Your task to perform on an android device: Show me productivity apps on the Play Store Image 0: 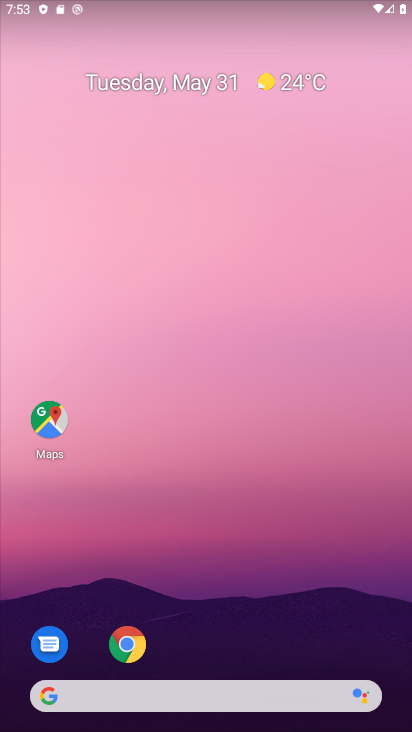
Step 0: drag from (258, 528) to (254, 210)
Your task to perform on an android device: Show me productivity apps on the Play Store Image 1: 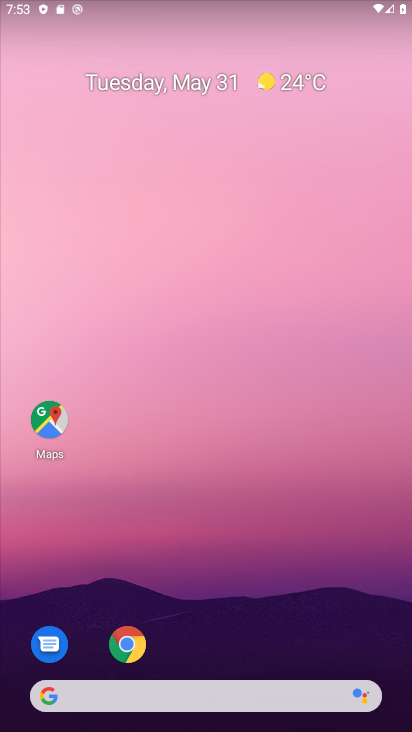
Step 1: drag from (291, 645) to (266, 235)
Your task to perform on an android device: Show me productivity apps on the Play Store Image 2: 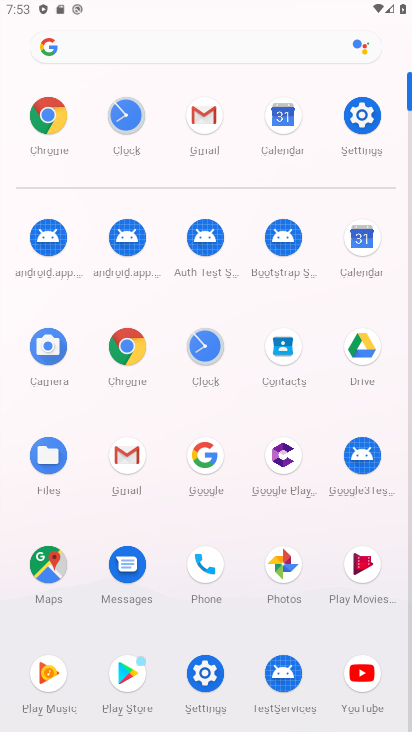
Step 2: click (129, 663)
Your task to perform on an android device: Show me productivity apps on the Play Store Image 3: 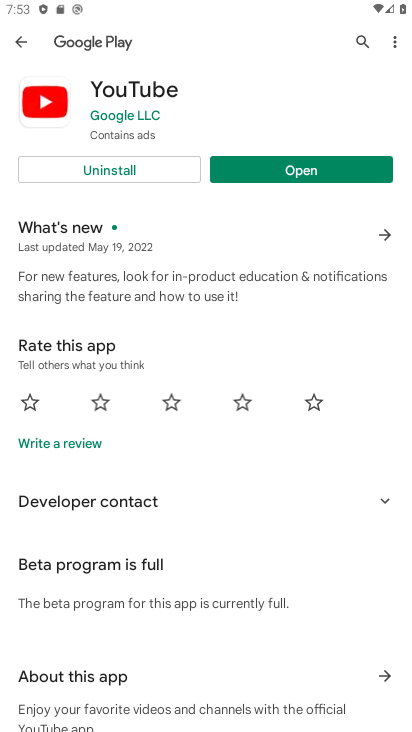
Step 3: drag from (185, 626) to (188, 293)
Your task to perform on an android device: Show me productivity apps on the Play Store Image 4: 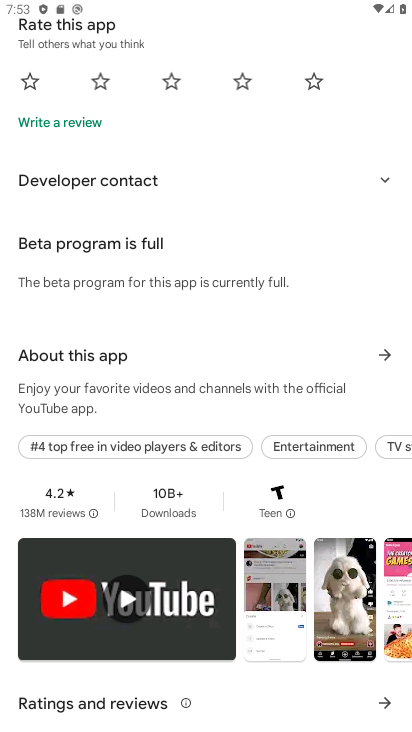
Step 4: drag from (81, 114) to (81, 358)
Your task to perform on an android device: Show me productivity apps on the Play Store Image 5: 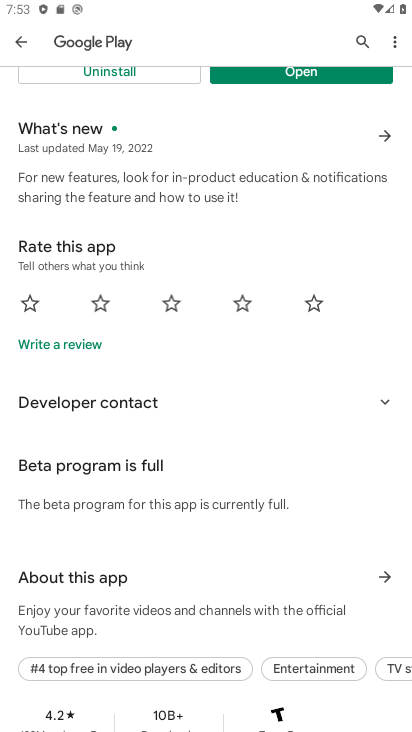
Step 5: click (21, 43)
Your task to perform on an android device: Show me productivity apps on the Play Store Image 6: 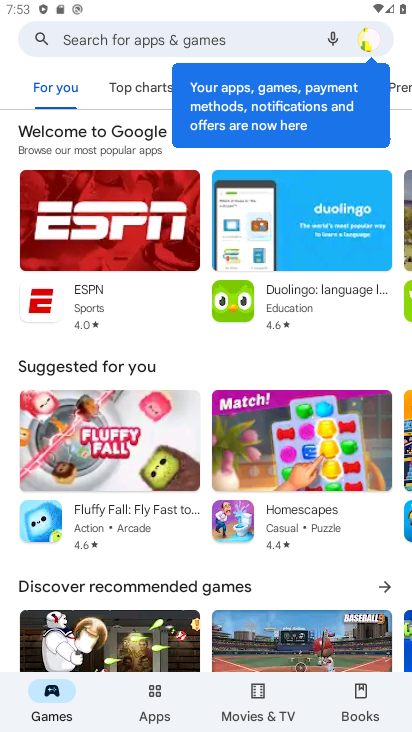
Step 6: click (157, 688)
Your task to perform on an android device: Show me productivity apps on the Play Store Image 7: 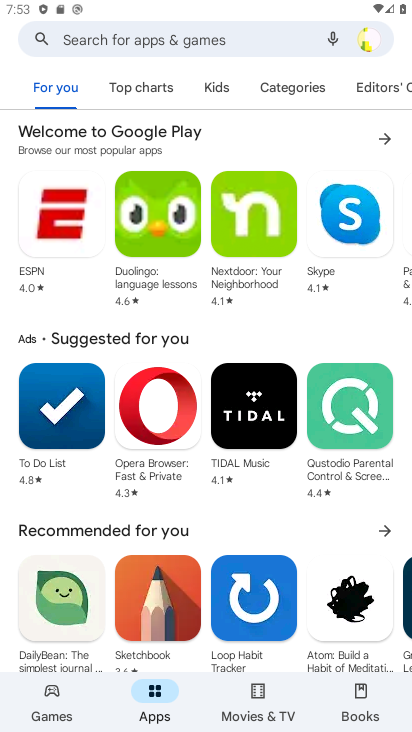
Step 7: click (287, 84)
Your task to perform on an android device: Show me productivity apps on the Play Store Image 8: 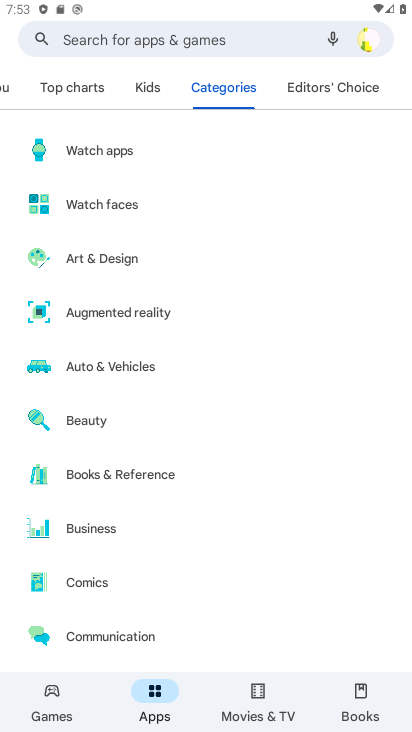
Step 8: drag from (134, 489) to (182, 273)
Your task to perform on an android device: Show me productivity apps on the Play Store Image 9: 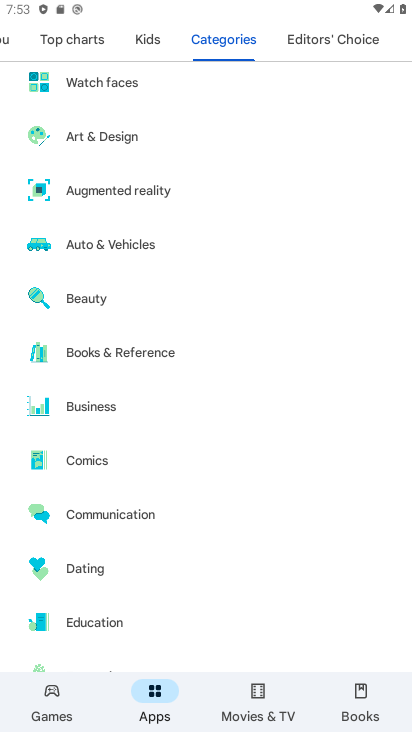
Step 9: drag from (196, 577) to (203, 311)
Your task to perform on an android device: Show me productivity apps on the Play Store Image 10: 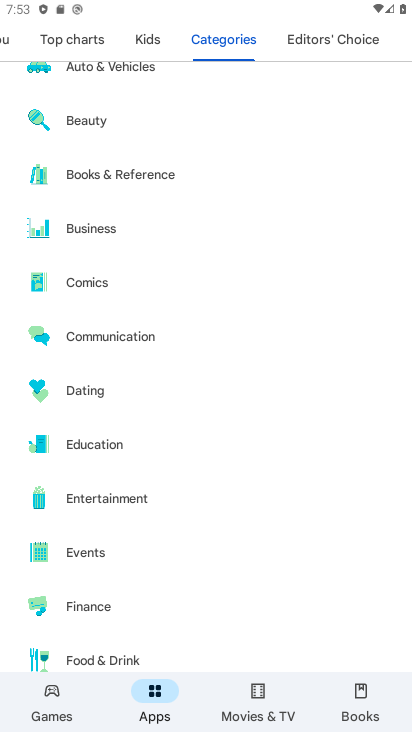
Step 10: drag from (169, 614) to (222, 213)
Your task to perform on an android device: Show me productivity apps on the Play Store Image 11: 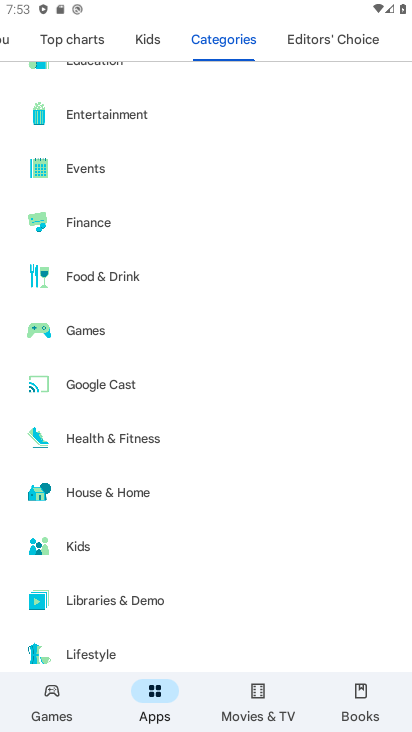
Step 11: drag from (172, 580) to (229, 161)
Your task to perform on an android device: Show me productivity apps on the Play Store Image 12: 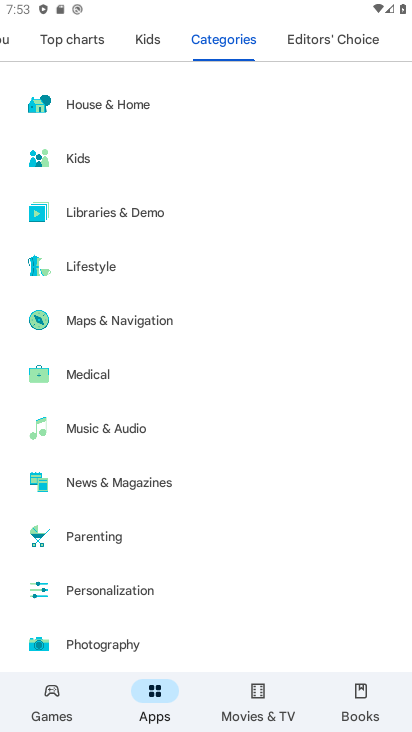
Step 12: drag from (175, 564) to (207, 269)
Your task to perform on an android device: Show me productivity apps on the Play Store Image 13: 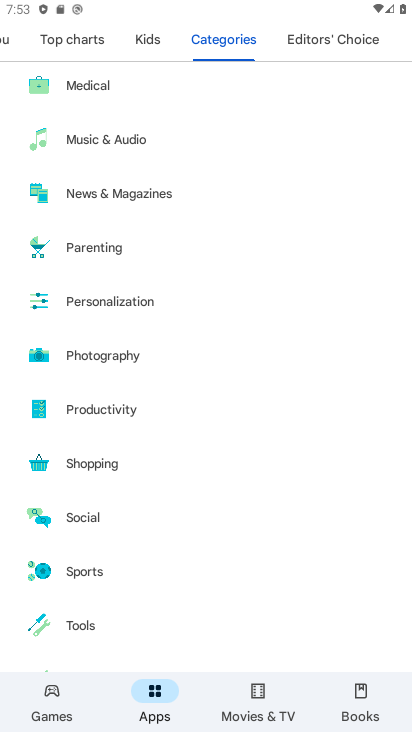
Step 13: click (132, 407)
Your task to perform on an android device: Show me productivity apps on the Play Store Image 14: 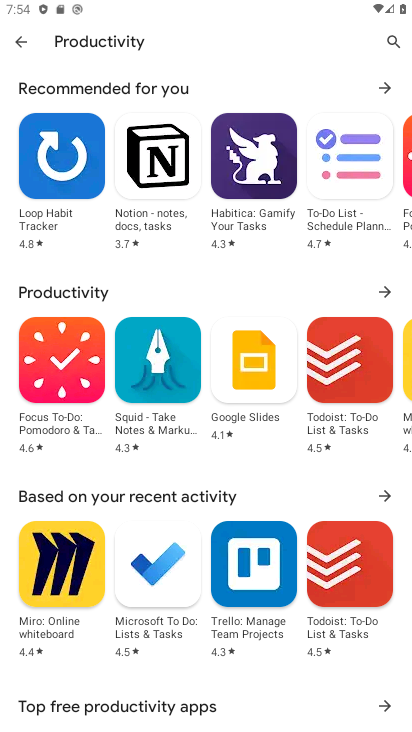
Step 14: task complete